Your task to perform on an android device: Open Youtube and go to the subscriptions tab Image 0: 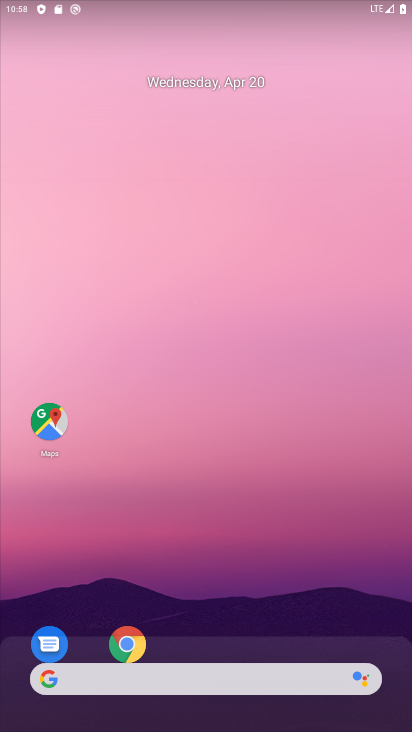
Step 0: drag from (276, 657) to (182, 6)
Your task to perform on an android device: Open Youtube and go to the subscriptions tab Image 1: 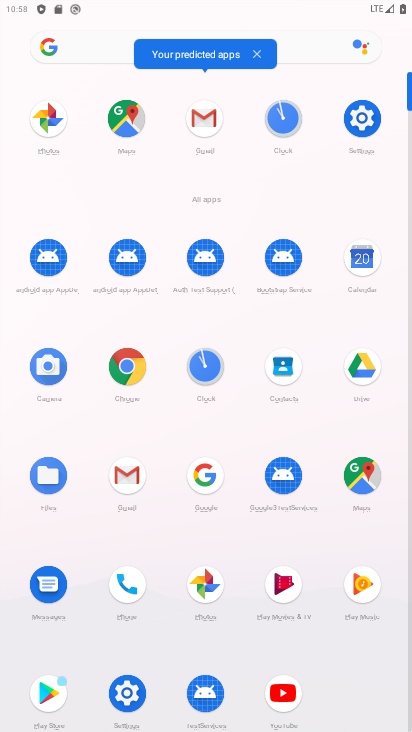
Step 1: drag from (165, 186) to (179, 35)
Your task to perform on an android device: Open Youtube and go to the subscriptions tab Image 2: 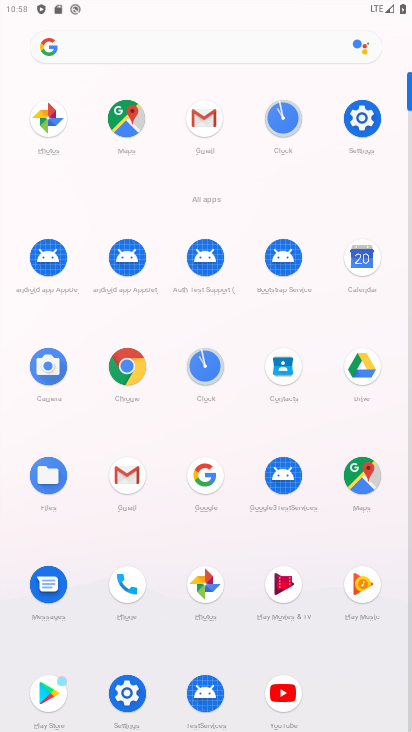
Step 2: click (286, 689)
Your task to perform on an android device: Open Youtube and go to the subscriptions tab Image 3: 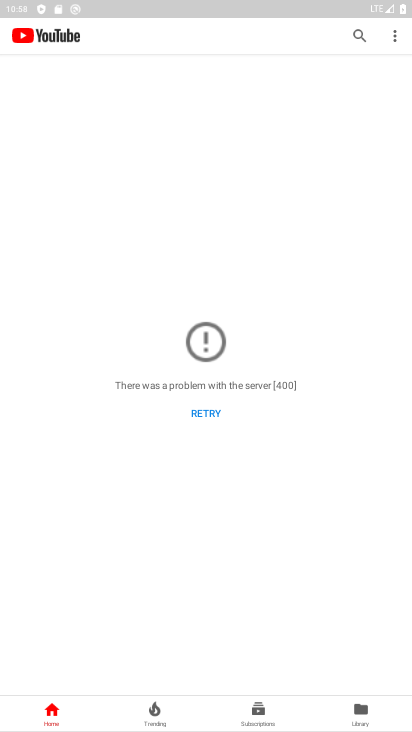
Step 3: click (267, 716)
Your task to perform on an android device: Open Youtube and go to the subscriptions tab Image 4: 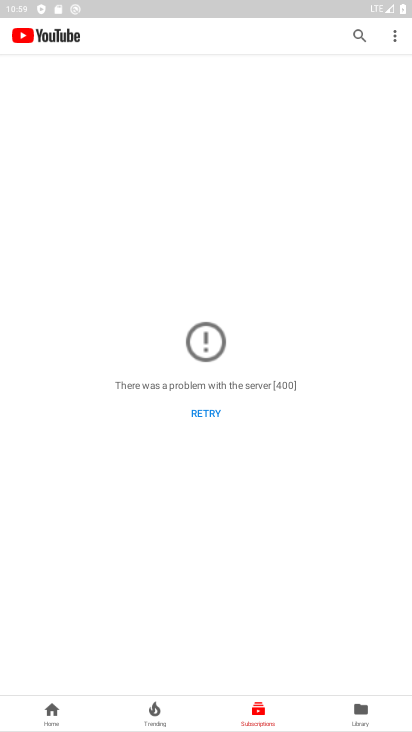
Step 4: task complete